Your task to perform on an android device: Open my contact list Image 0: 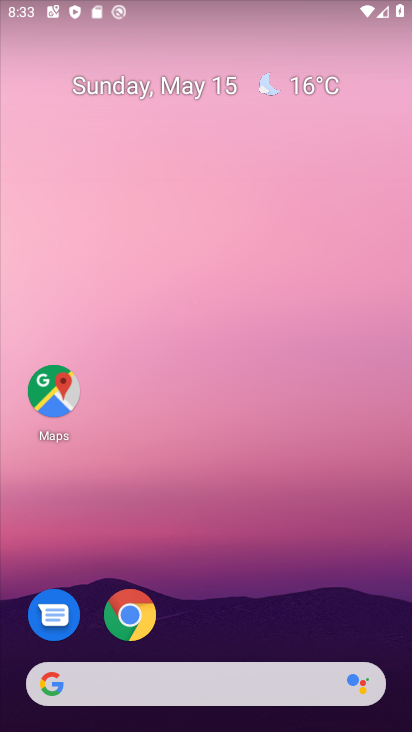
Step 0: drag from (261, 632) to (271, 130)
Your task to perform on an android device: Open my contact list Image 1: 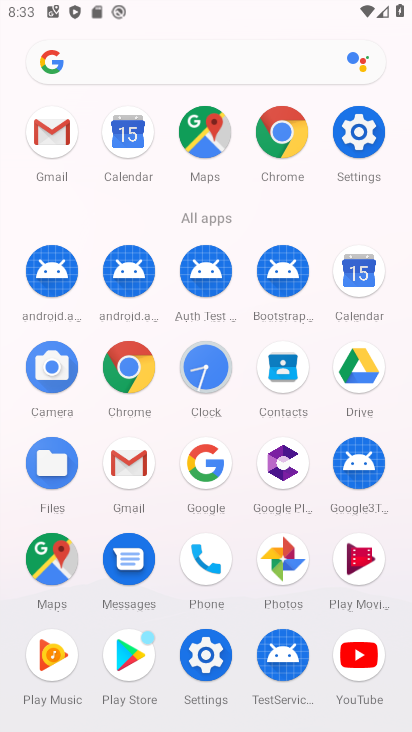
Step 1: click (285, 359)
Your task to perform on an android device: Open my contact list Image 2: 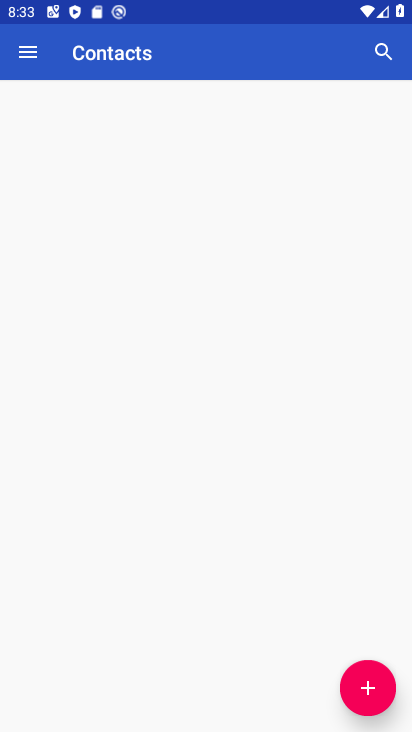
Step 2: click (30, 68)
Your task to perform on an android device: Open my contact list Image 3: 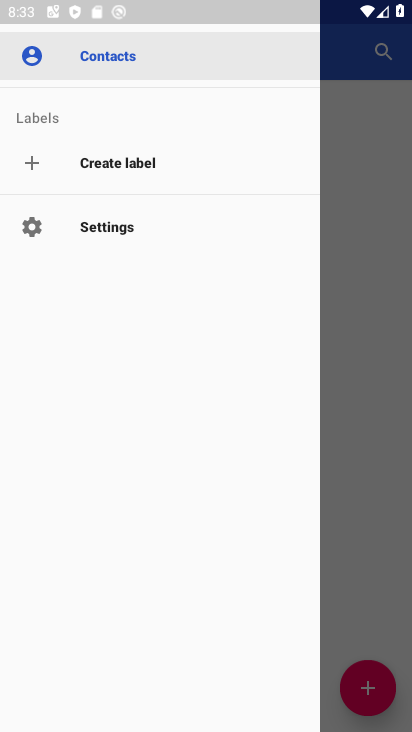
Step 3: click (179, 61)
Your task to perform on an android device: Open my contact list Image 4: 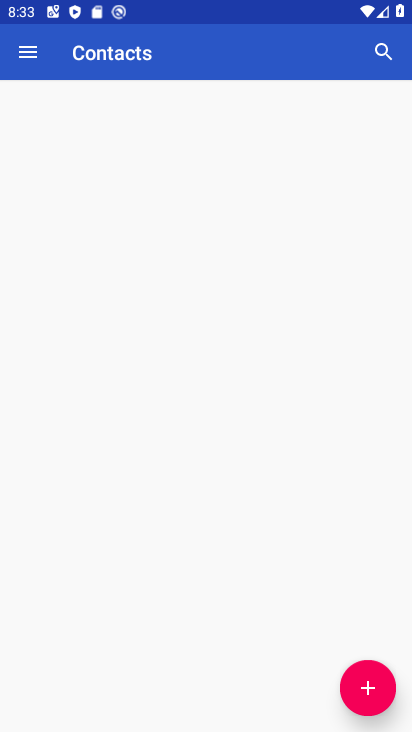
Step 4: task complete